Your task to perform on an android device: change timer sound Image 0: 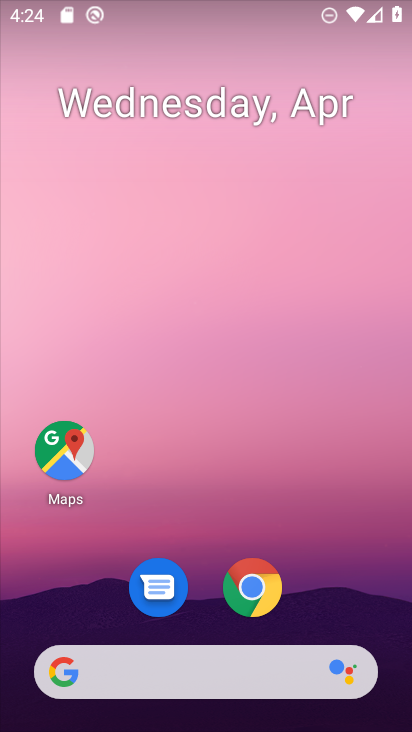
Step 0: drag from (199, 614) to (201, 164)
Your task to perform on an android device: change timer sound Image 1: 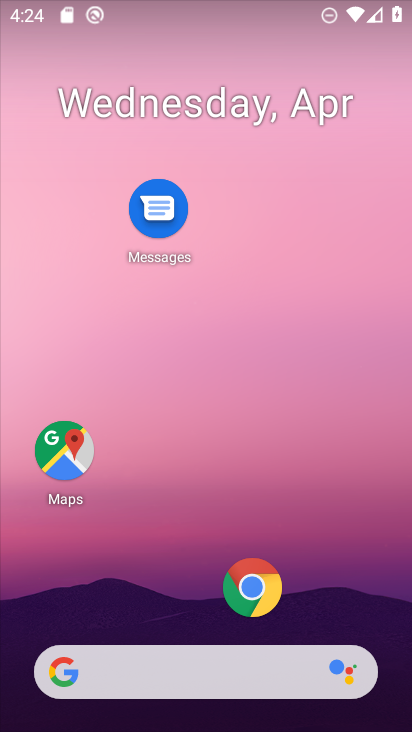
Step 1: drag from (177, 619) to (202, 150)
Your task to perform on an android device: change timer sound Image 2: 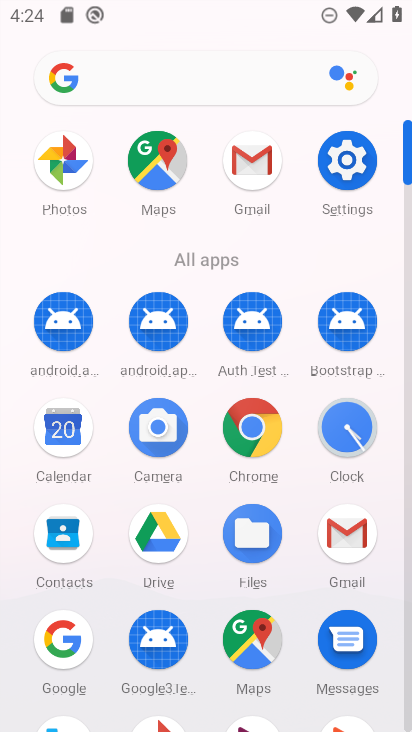
Step 2: click (343, 431)
Your task to perform on an android device: change timer sound Image 3: 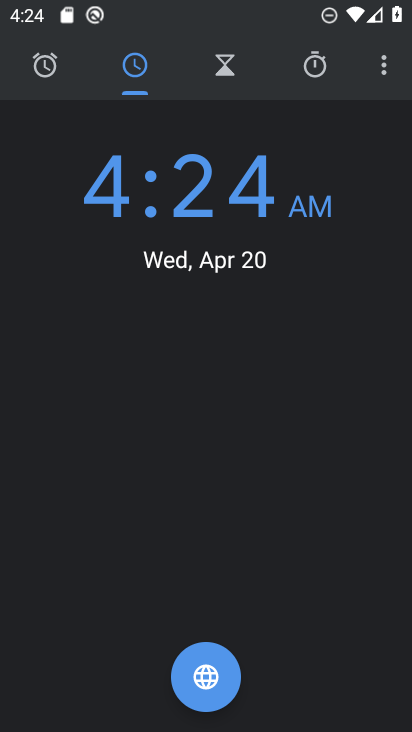
Step 3: click (389, 70)
Your task to perform on an android device: change timer sound Image 4: 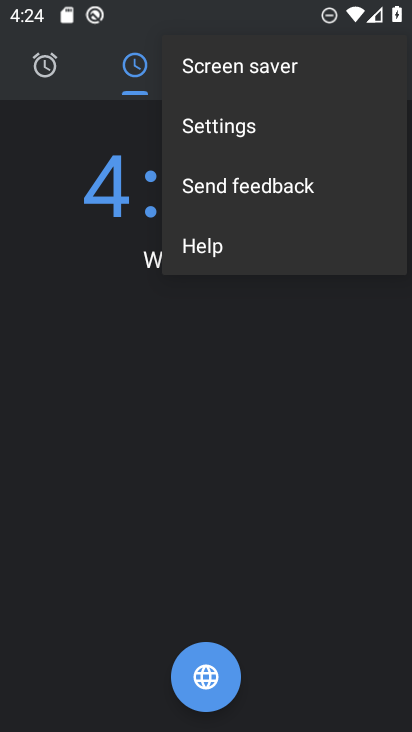
Step 4: click (274, 118)
Your task to perform on an android device: change timer sound Image 5: 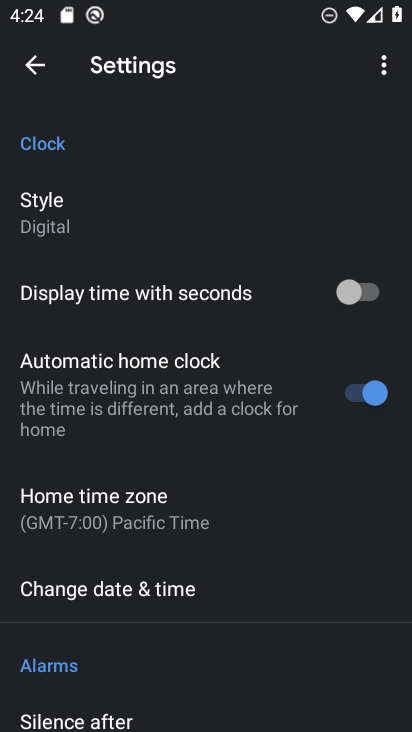
Step 5: drag from (177, 703) to (192, 395)
Your task to perform on an android device: change timer sound Image 6: 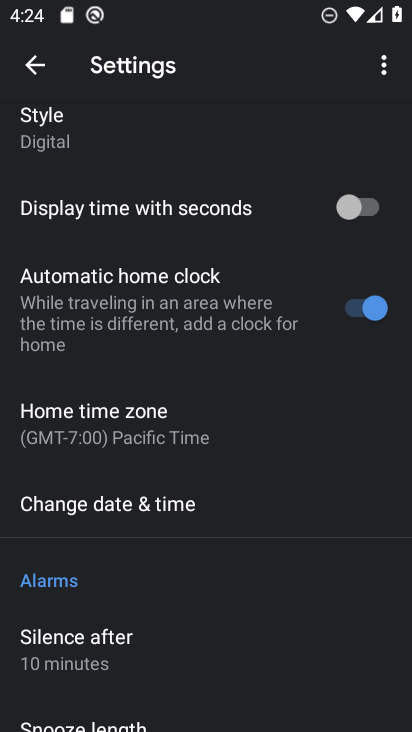
Step 6: drag from (199, 592) to (213, 259)
Your task to perform on an android device: change timer sound Image 7: 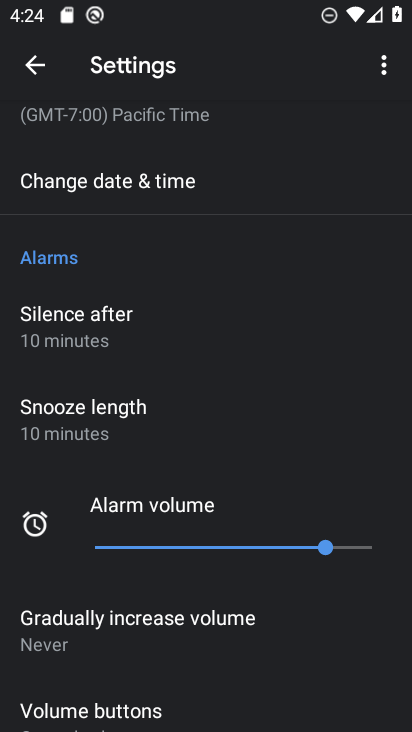
Step 7: drag from (209, 622) to (228, 357)
Your task to perform on an android device: change timer sound Image 8: 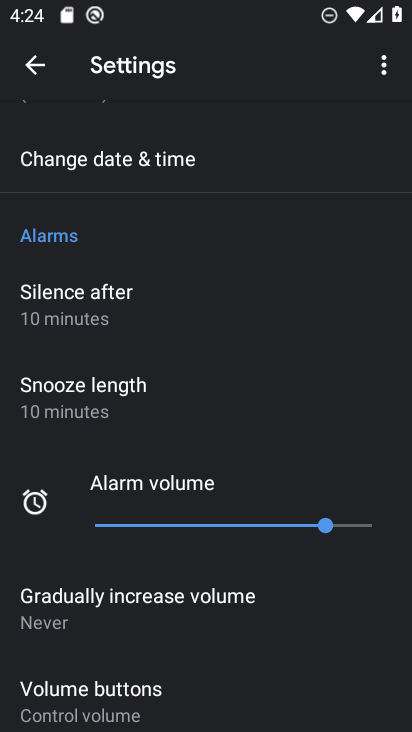
Step 8: drag from (191, 606) to (223, 204)
Your task to perform on an android device: change timer sound Image 9: 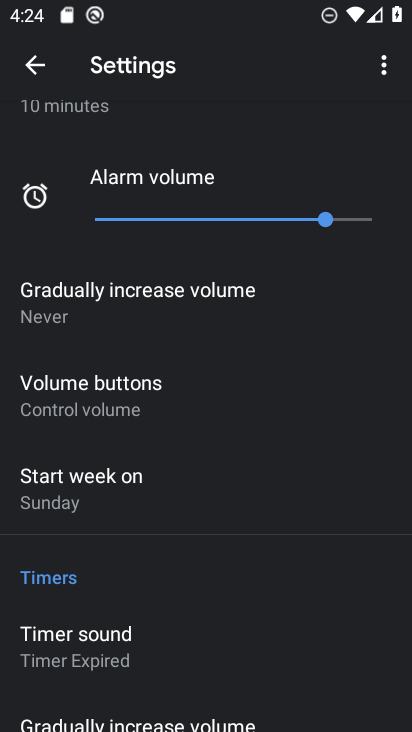
Step 9: click (118, 620)
Your task to perform on an android device: change timer sound Image 10: 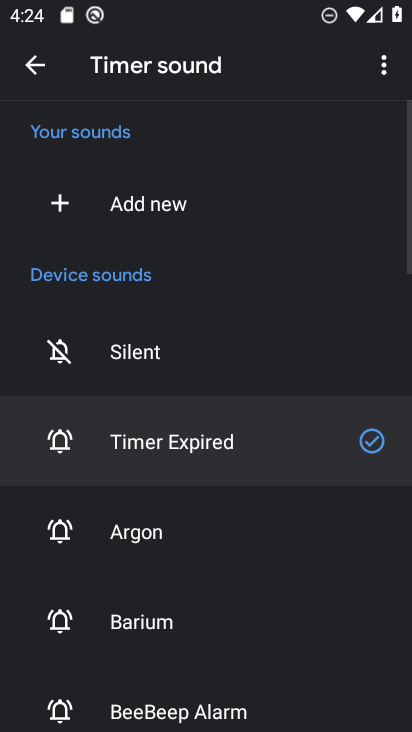
Step 10: click (201, 532)
Your task to perform on an android device: change timer sound Image 11: 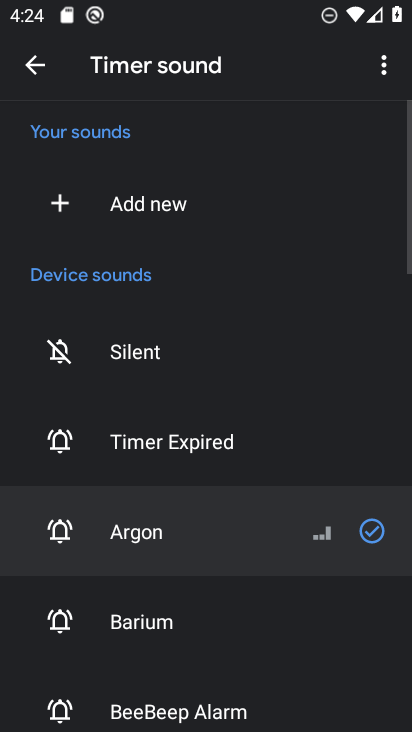
Step 11: task complete